Your task to perform on an android device: turn on the 12-hour format for clock Image 0: 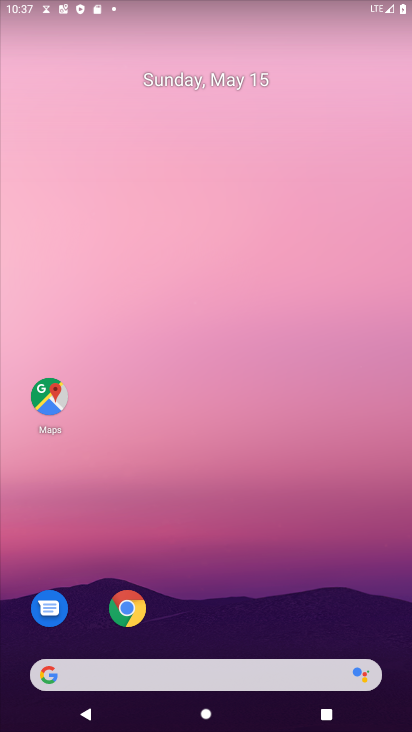
Step 0: drag from (296, 553) to (245, 155)
Your task to perform on an android device: turn on the 12-hour format for clock Image 1: 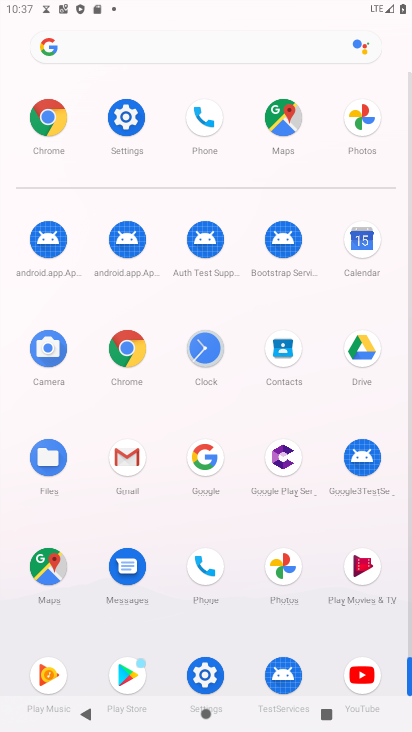
Step 1: click (214, 348)
Your task to perform on an android device: turn on the 12-hour format for clock Image 2: 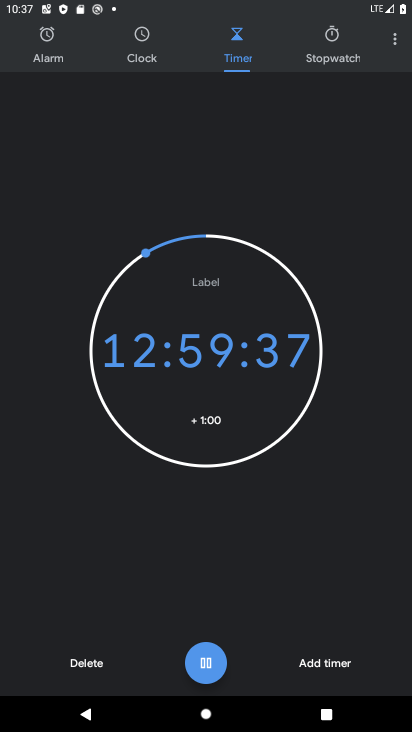
Step 2: click (398, 35)
Your task to perform on an android device: turn on the 12-hour format for clock Image 3: 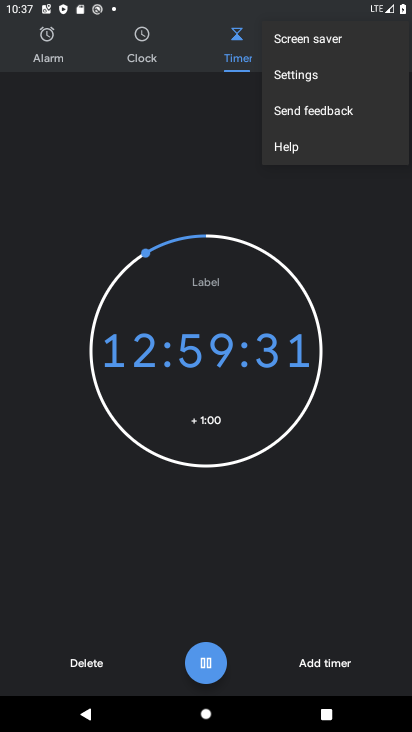
Step 3: click (321, 76)
Your task to perform on an android device: turn on the 12-hour format for clock Image 4: 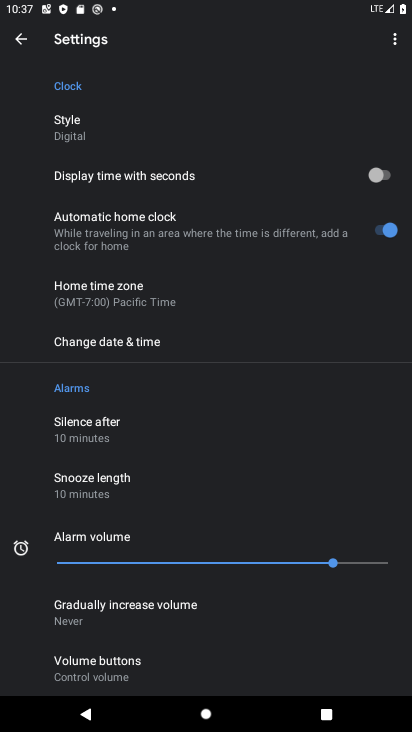
Step 4: click (135, 343)
Your task to perform on an android device: turn on the 12-hour format for clock Image 5: 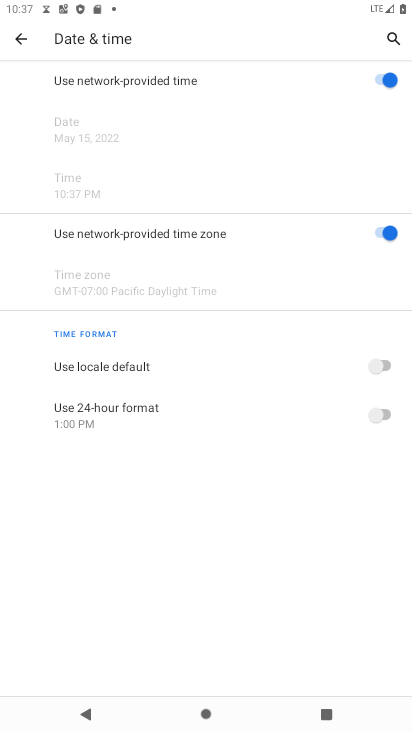
Step 5: click (373, 359)
Your task to perform on an android device: turn on the 12-hour format for clock Image 6: 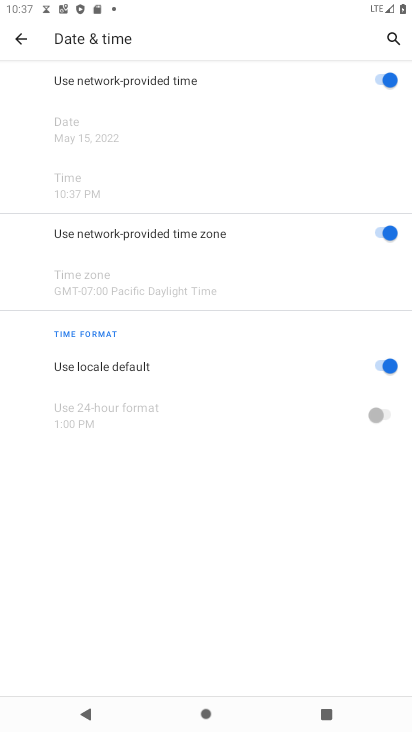
Step 6: task complete